Your task to perform on an android device: Go to Yahoo.com Image 0: 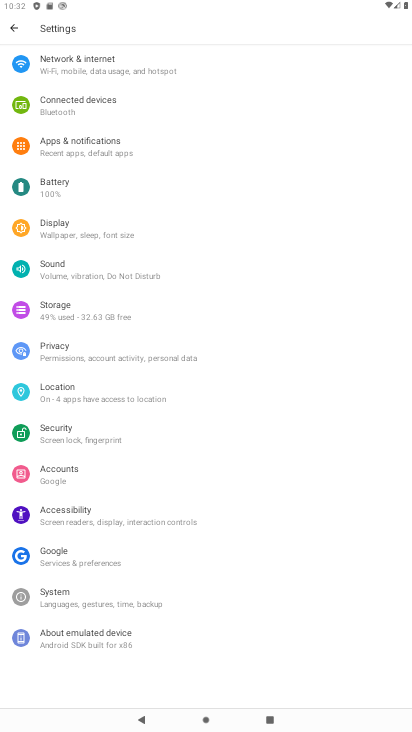
Step 0: press home button
Your task to perform on an android device: Go to Yahoo.com Image 1: 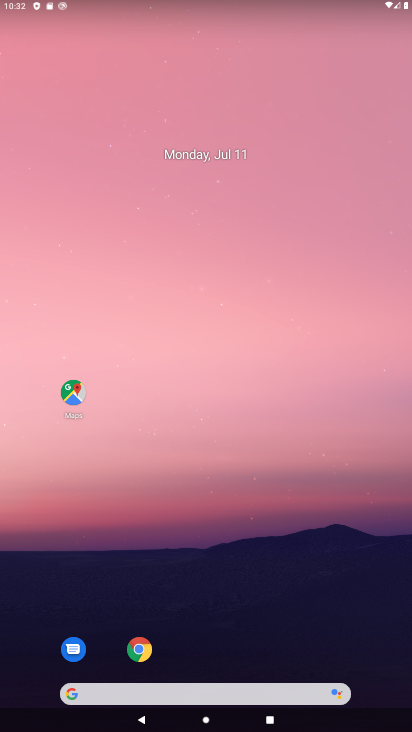
Step 1: click (140, 650)
Your task to perform on an android device: Go to Yahoo.com Image 2: 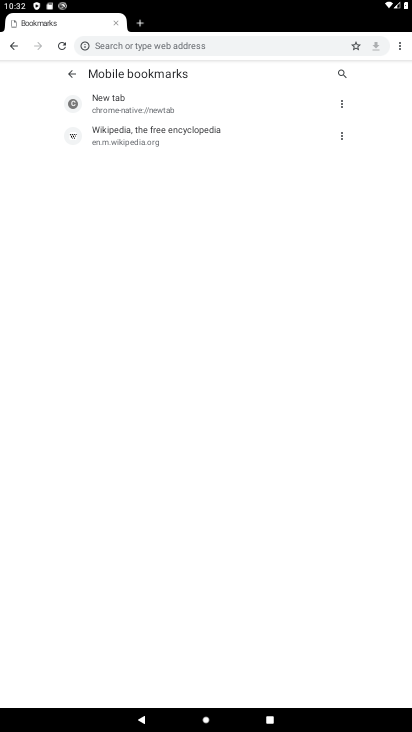
Step 2: click (277, 51)
Your task to perform on an android device: Go to Yahoo.com Image 3: 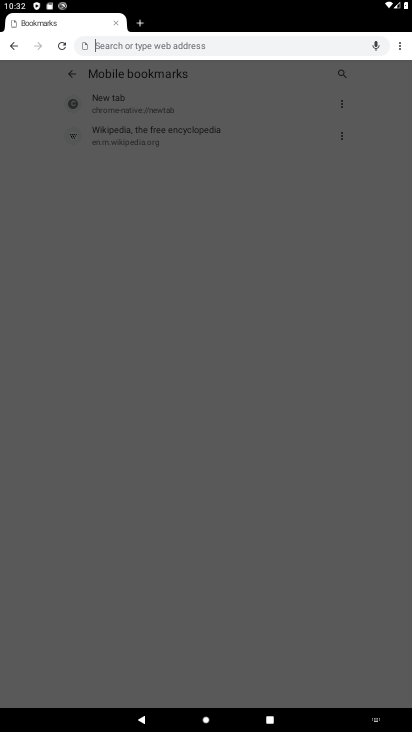
Step 3: type "Yahoo.com"
Your task to perform on an android device: Go to Yahoo.com Image 4: 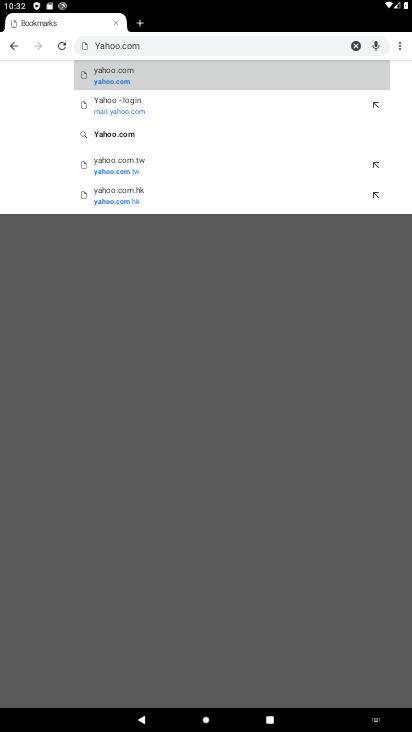
Step 4: click (130, 137)
Your task to perform on an android device: Go to Yahoo.com Image 5: 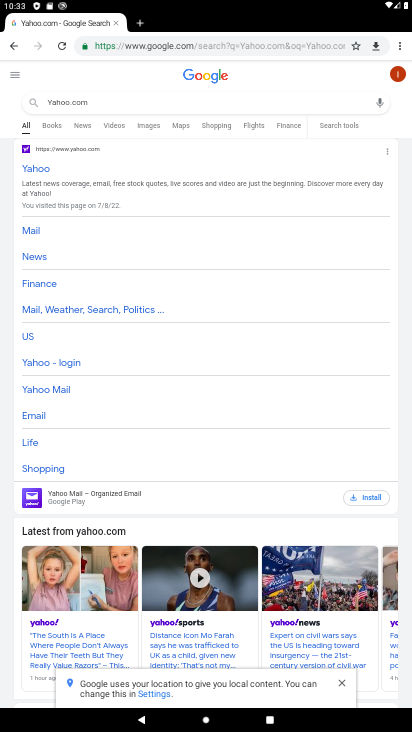
Step 5: click (39, 168)
Your task to perform on an android device: Go to Yahoo.com Image 6: 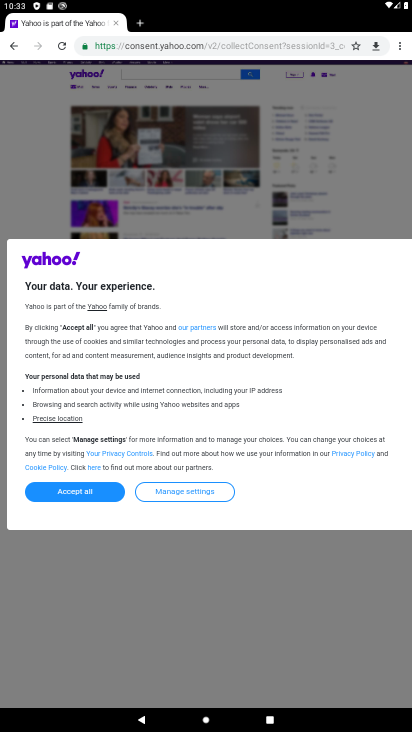
Step 6: click (52, 492)
Your task to perform on an android device: Go to Yahoo.com Image 7: 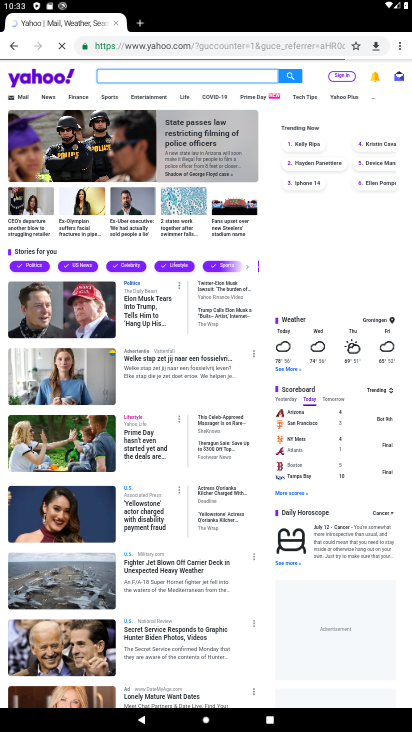
Step 7: task complete